Your task to perform on an android device: change timer sound Image 0: 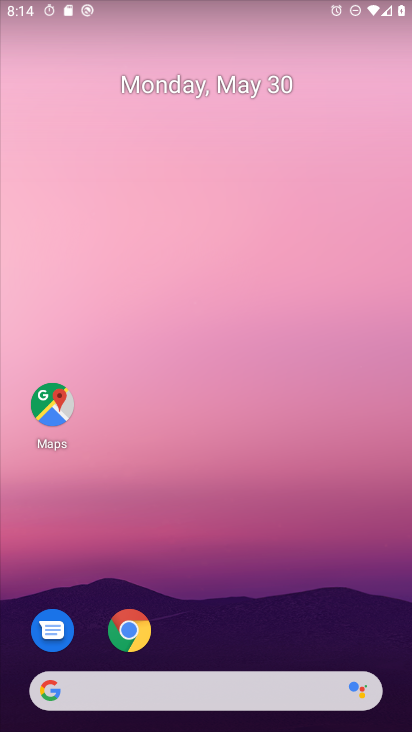
Step 0: drag from (325, 560) to (246, 99)
Your task to perform on an android device: change timer sound Image 1: 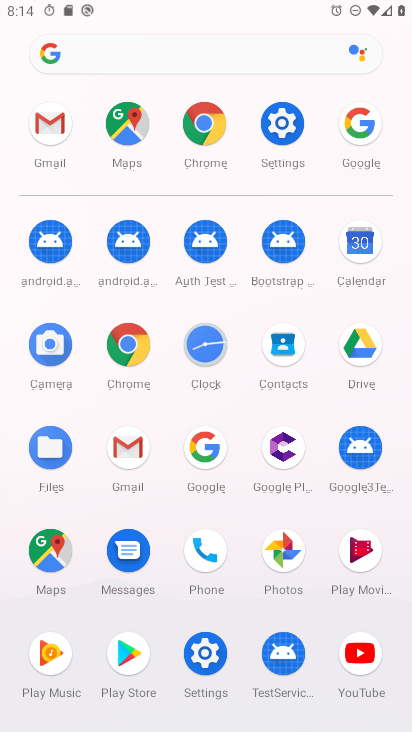
Step 1: click (203, 336)
Your task to perform on an android device: change timer sound Image 2: 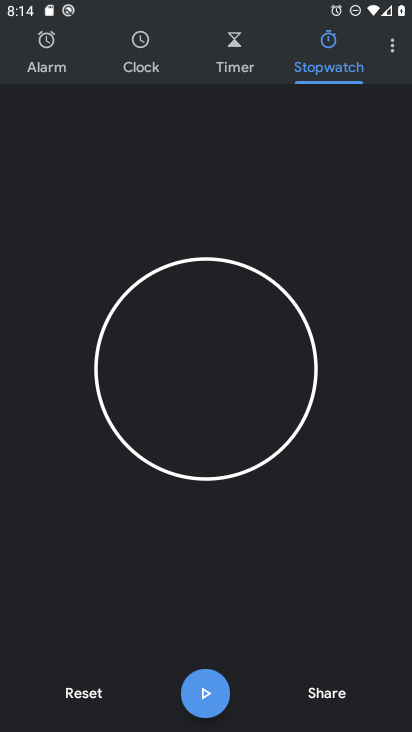
Step 2: click (389, 43)
Your task to perform on an android device: change timer sound Image 3: 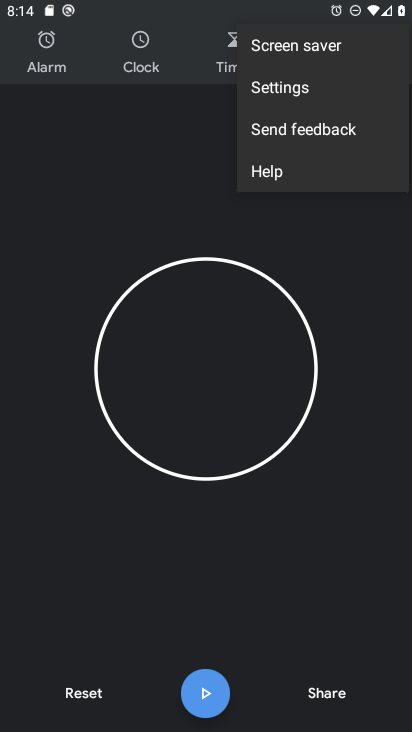
Step 3: click (322, 84)
Your task to perform on an android device: change timer sound Image 4: 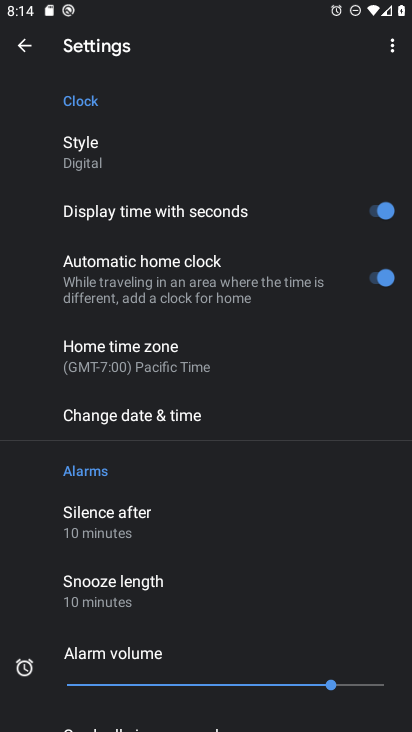
Step 4: drag from (165, 617) to (156, 191)
Your task to perform on an android device: change timer sound Image 5: 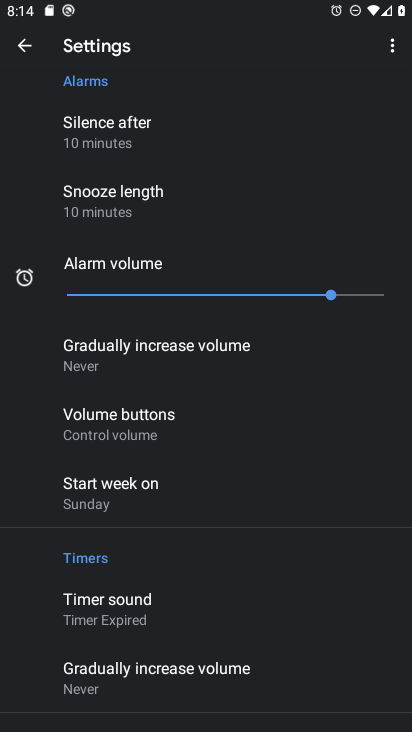
Step 5: click (132, 618)
Your task to perform on an android device: change timer sound Image 6: 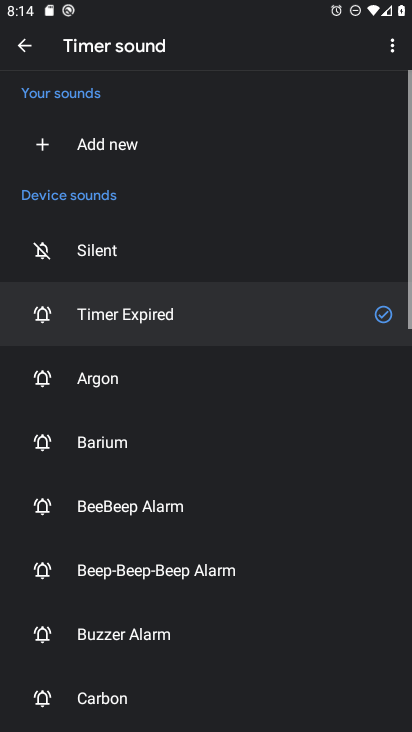
Step 6: click (170, 447)
Your task to perform on an android device: change timer sound Image 7: 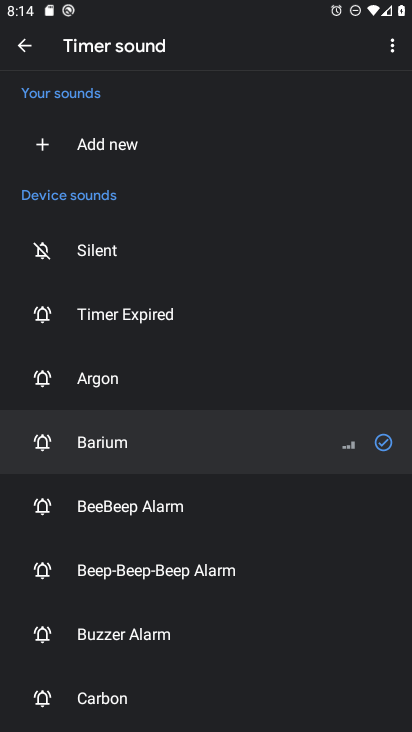
Step 7: task complete